Your task to perform on an android device: Open display settings Image 0: 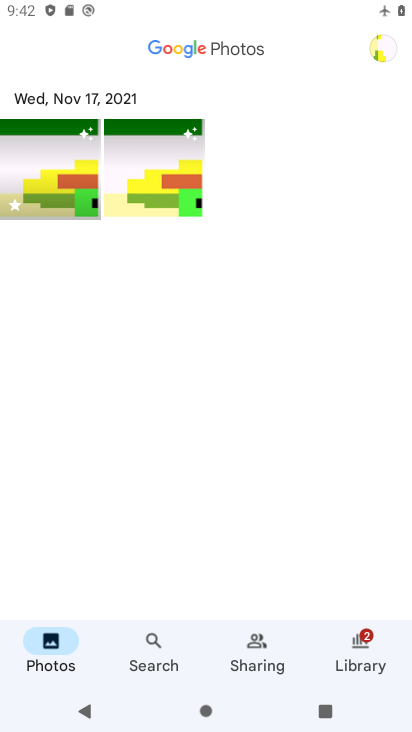
Step 0: press home button
Your task to perform on an android device: Open display settings Image 1: 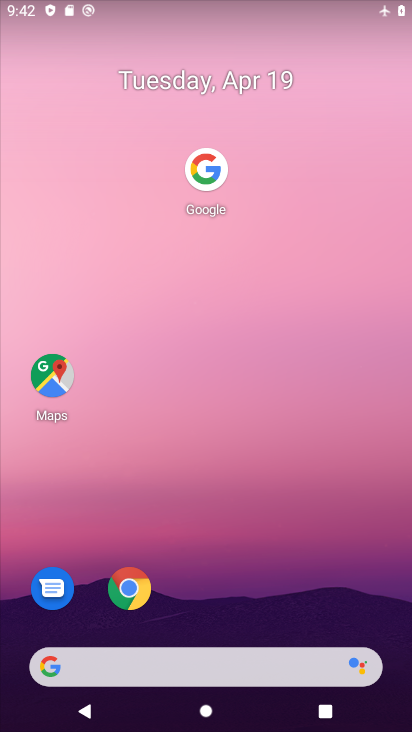
Step 1: drag from (220, 523) to (239, 7)
Your task to perform on an android device: Open display settings Image 2: 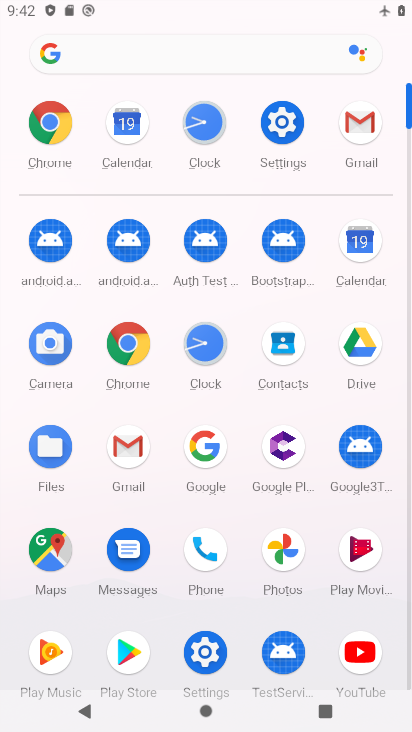
Step 2: click (280, 123)
Your task to perform on an android device: Open display settings Image 3: 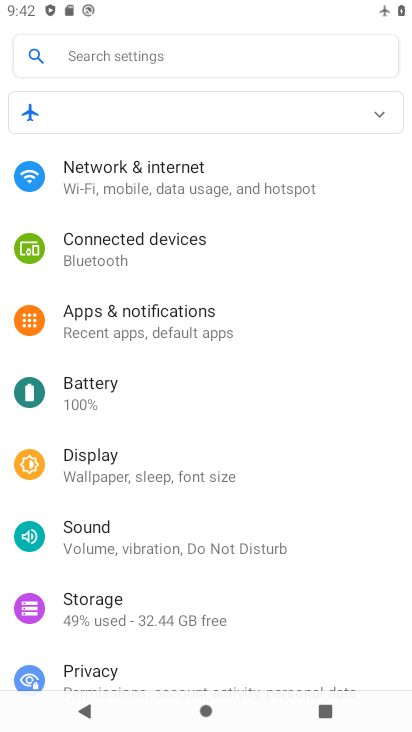
Step 3: click (110, 449)
Your task to perform on an android device: Open display settings Image 4: 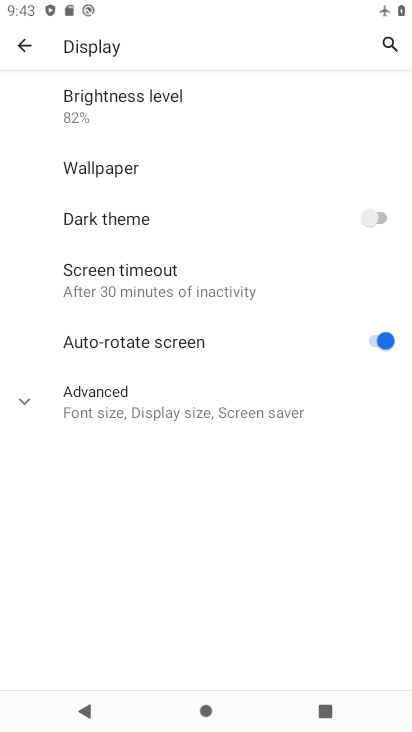
Step 4: task complete